Your task to perform on an android device: Do I have any events tomorrow? Image 0: 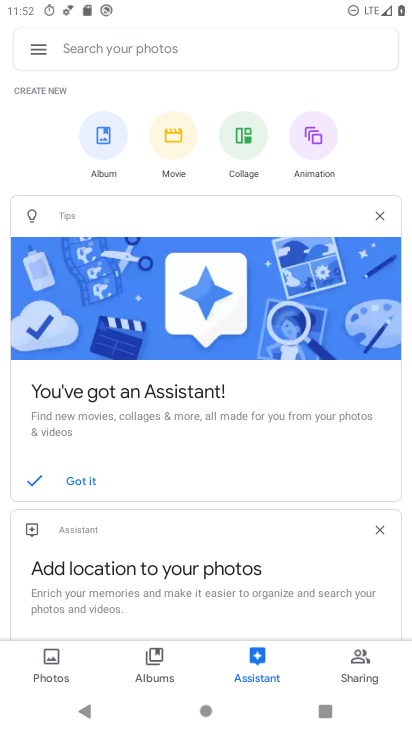
Step 0: press home button
Your task to perform on an android device: Do I have any events tomorrow? Image 1: 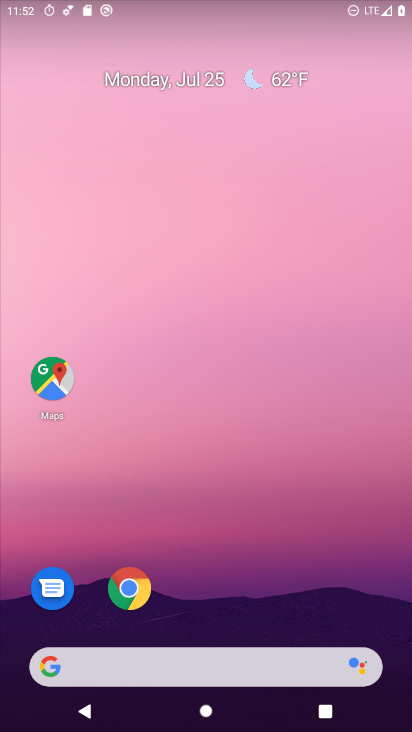
Step 1: drag from (19, 632) to (285, 165)
Your task to perform on an android device: Do I have any events tomorrow? Image 2: 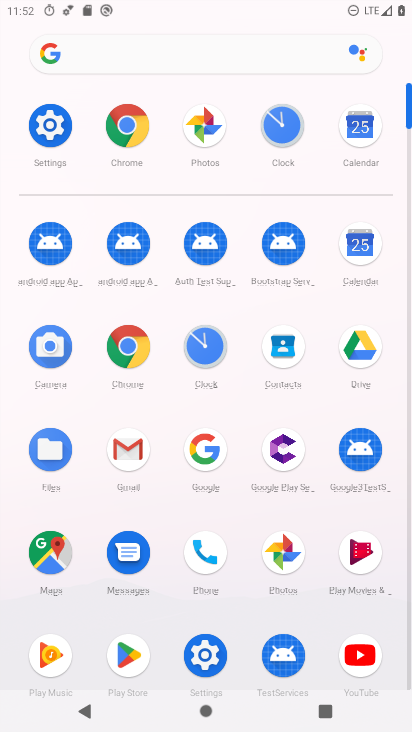
Step 2: click (342, 252)
Your task to perform on an android device: Do I have any events tomorrow? Image 3: 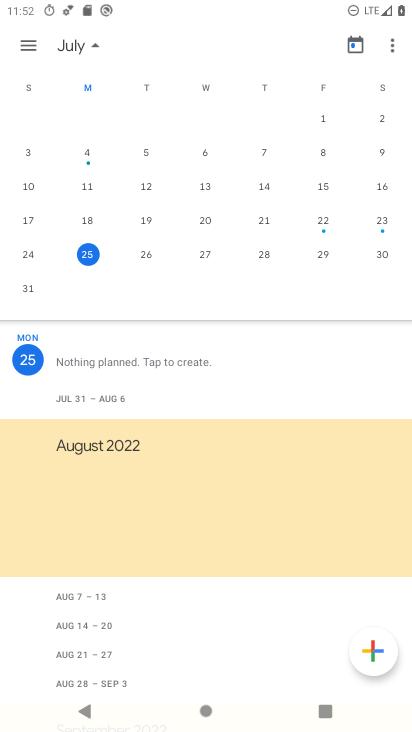
Step 3: click (142, 246)
Your task to perform on an android device: Do I have any events tomorrow? Image 4: 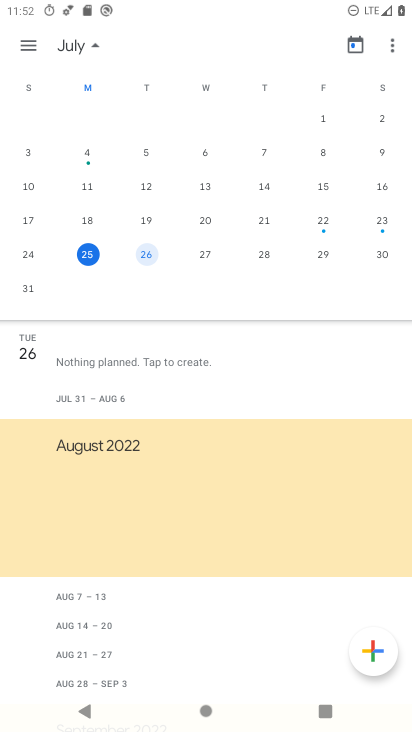
Step 4: task complete